Your task to perform on an android device: Open Youtube and go to "Your channel" Image 0: 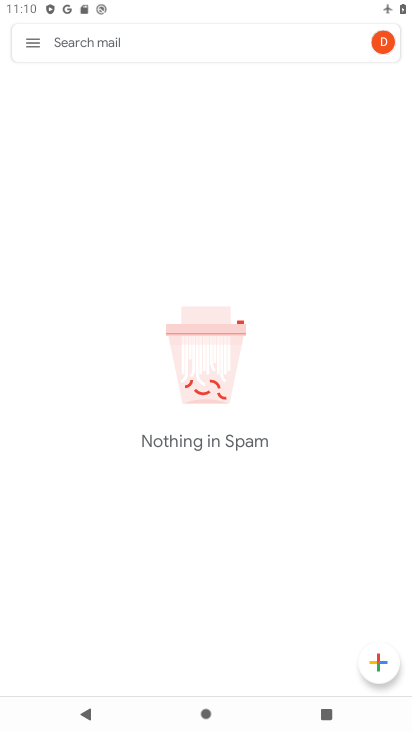
Step 0: press home button
Your task to perform on an android device: Open Youtube and go to "Your channel" Image 1: 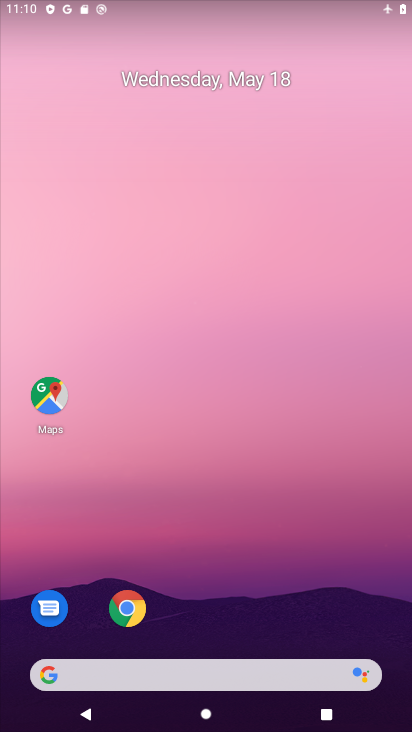
Step 1: drag from (141, 423) to (91, 130)
Your task to perform on an android device: Open Youtube and go to "Your channel" Image 2: 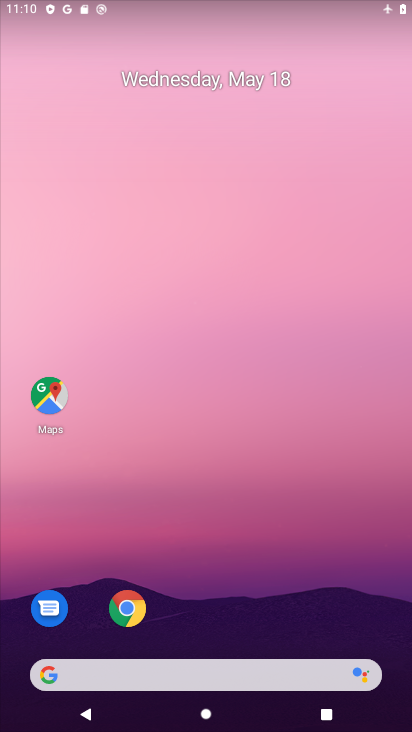
Step 2: drag from (172, 591) to (49, 98)
Your task to perform on an android device: Open Youtube and go to "Your channel" Image 3: 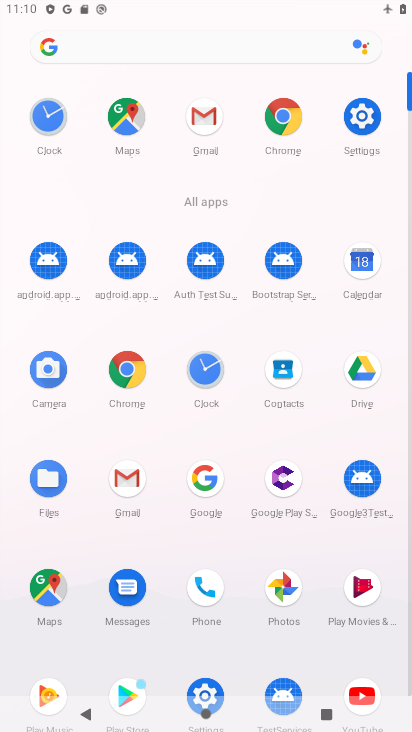
Step 3: drag from (343, 672) to (321, 576)
Your task to perform on an android device: Open Youtube and go to "Your channel" Image 4: 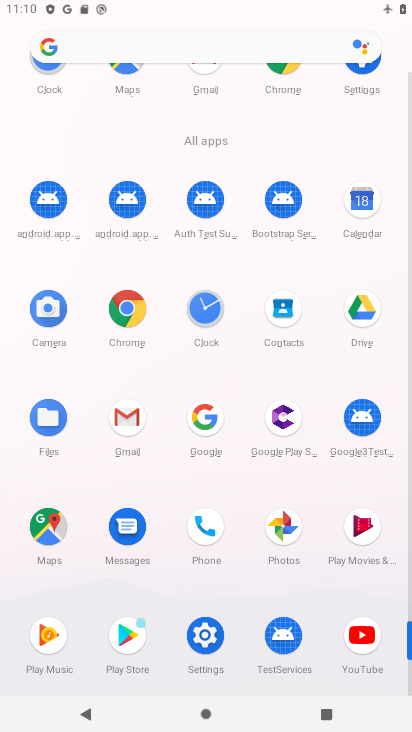
Step 4: click (356, 642)
Your task to perform on an android device: Open Youtube and go to "Your channel" Image 5: 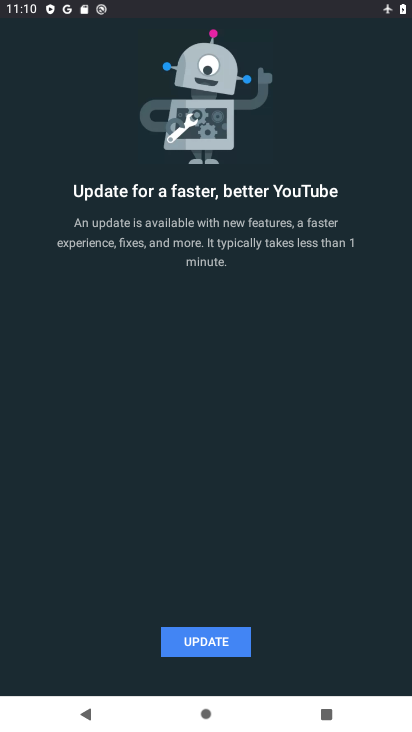
Step 5: click (140, 641)
Your task to perform on an android device: Open Youtube and go to "Your channel" Image 6: 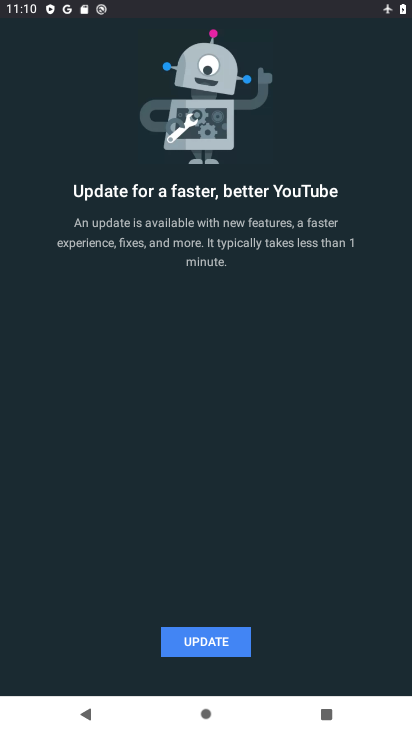
Step 6: click (213, 637)
Your task to perform on an android device: Open Youtube and go to "Your channel" Image 7: 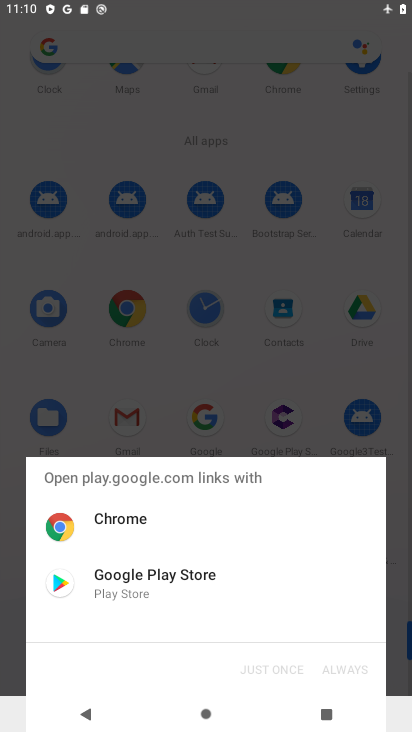
Step 7: click (218, 577)
Your task to perform on an android device: Open Youtube and go to "Your channel" Image 8: 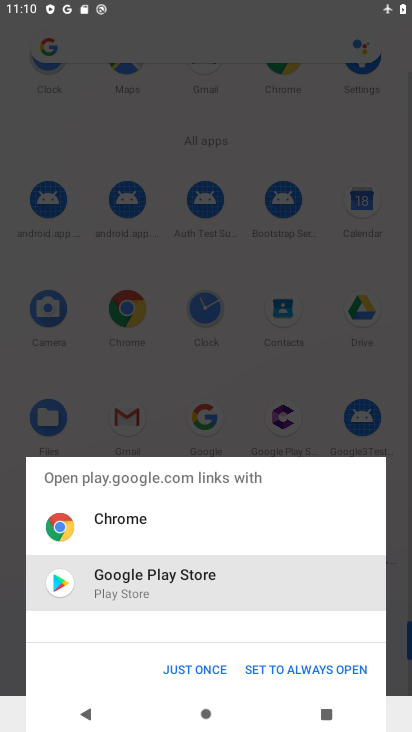
Step 8: click (216, 669)
Your task to perform on an android device: Open Youtube and go to "Your channel" Image 9: 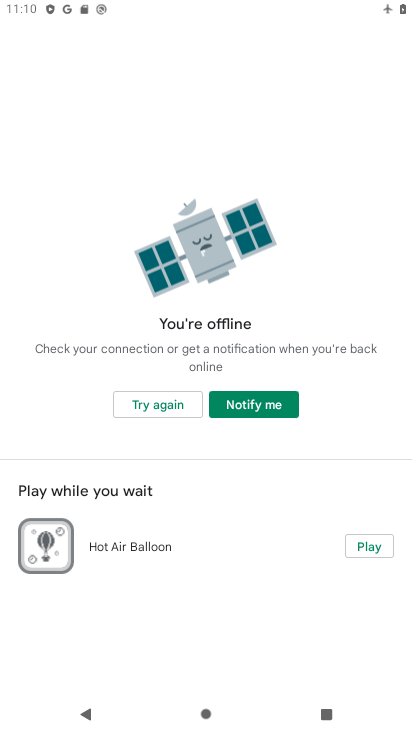
Step 9: click (159, 405)
Your task to perform on an android device: Open Youtube and go to "Your channel" Image 10: 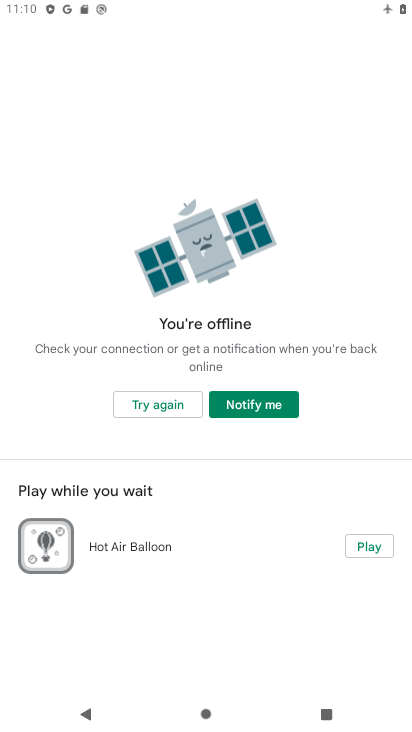
Step 10: press back button
Your task to perform on an android device: Open Youtube and go to "Your channel" Image 11: 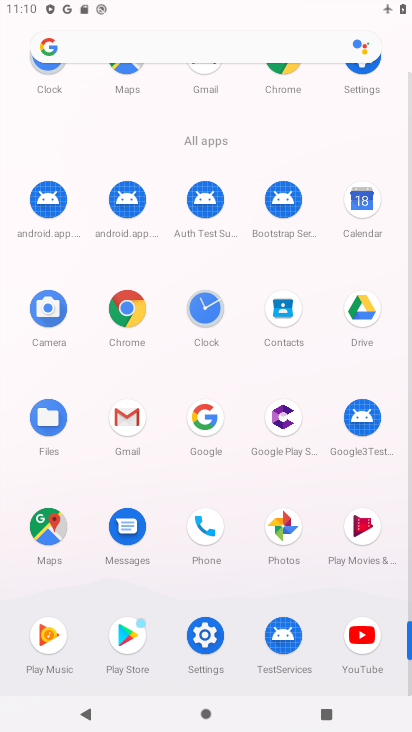
Step 11: click (358, 639)
Your task to perform on an android device: Open Youtube and go to "Your channel" Image 12: 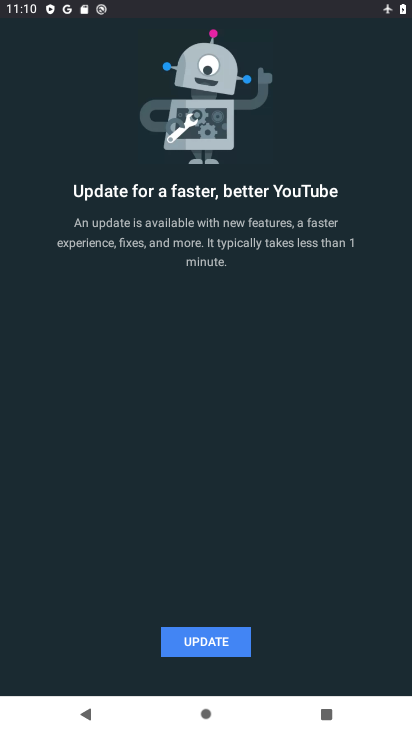
Step 12: task complete